Your task to perform on an android device: Search for the new Nike Air Max 270 on Nike.com Image 0: 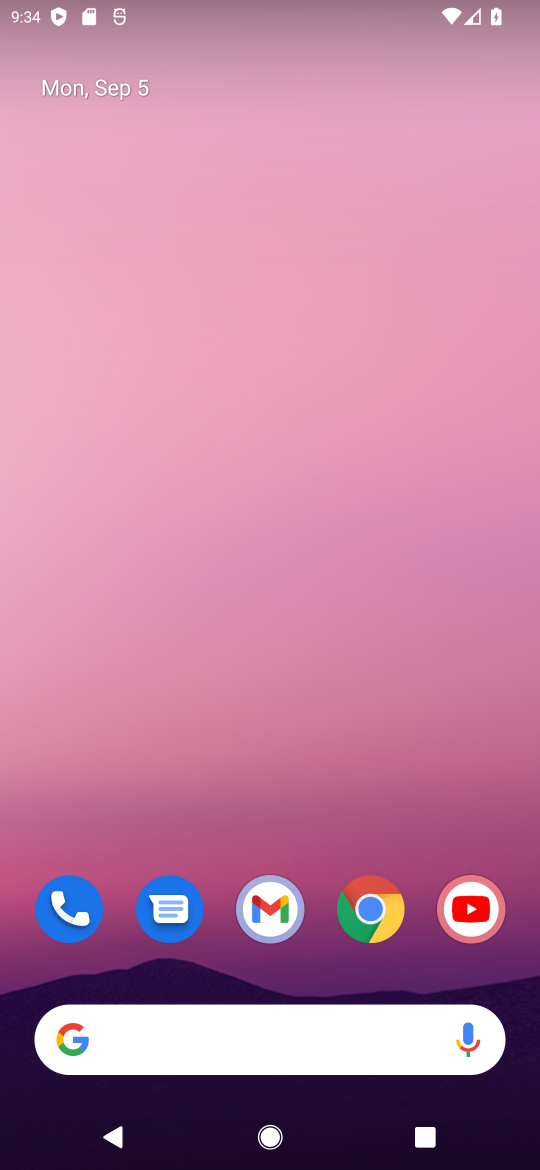
Step 0: click (266, 922)
Your task to perform on an android device: Search for the new Nike Air Max 270 on Nike.com Image 1: 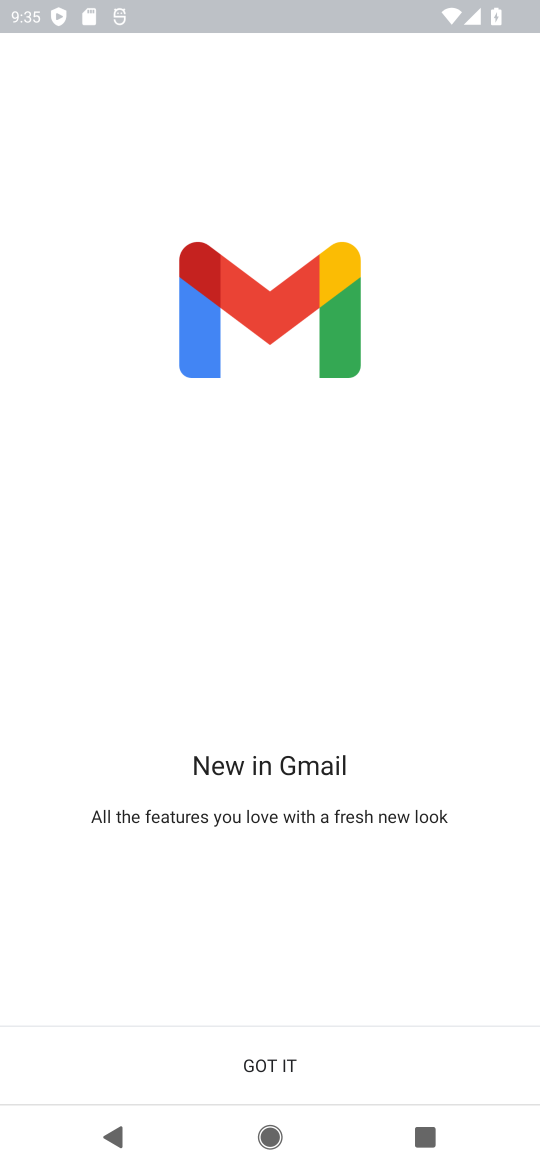
Step 1: click (276, 1080)
Your task to perform on an android device: Search for the new Nike Air Max 270 on Nike.com Image 2: 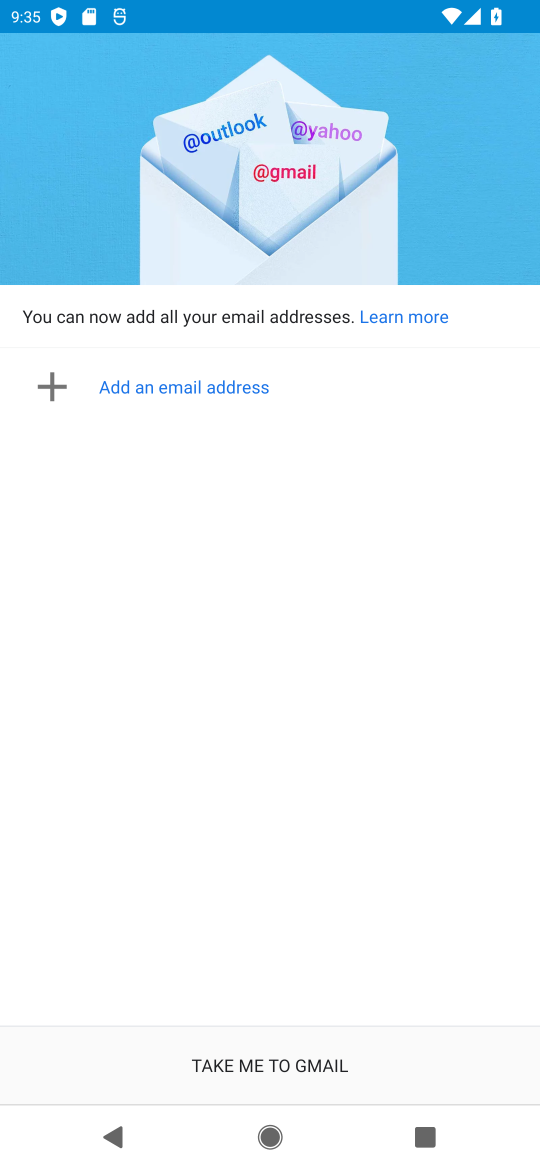
Step 2: task complete